Your task to perform on an android device: turn off notifications in google photos Image 0: 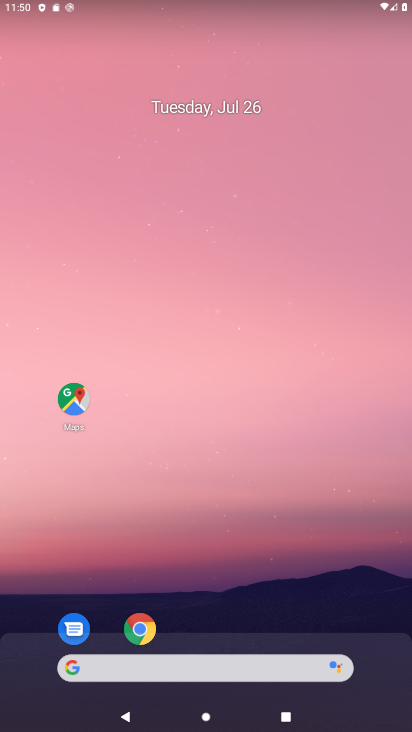
Step 0: click (288, 87)
Your task to perform on an android device: turn off notifications in google photos Image 1: 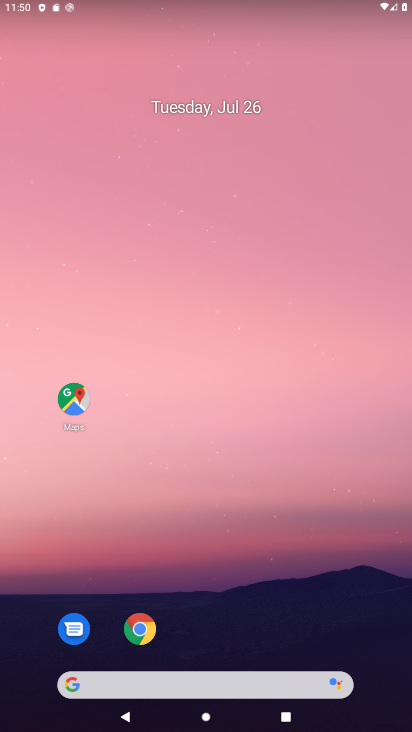
Step 1: drag from (223, 629) to (251, 159)
Your task to perform on an android device: turn off notifications in google photos Image 2: 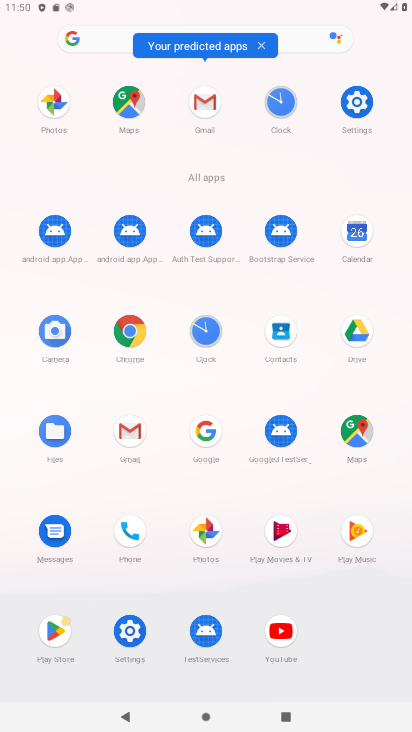
Step 2: click (199, 528)
Your task to perform on an android device: turn off notifications in google photos Image 3: 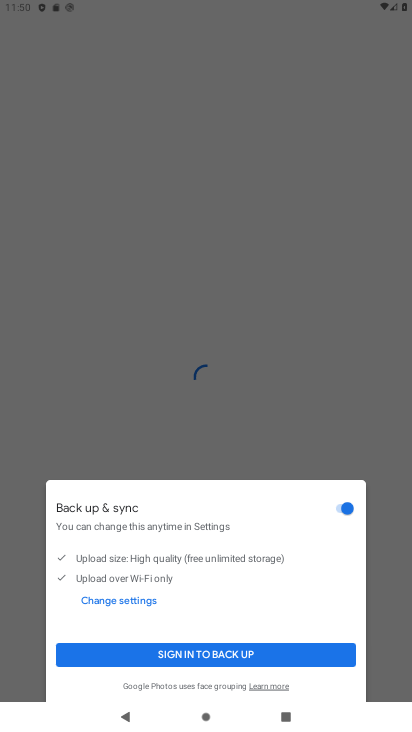
Step 3: drag from (211, 558) to (217, 256)
Your task to perform on an android device: turn off notifications in google photos Image 4: 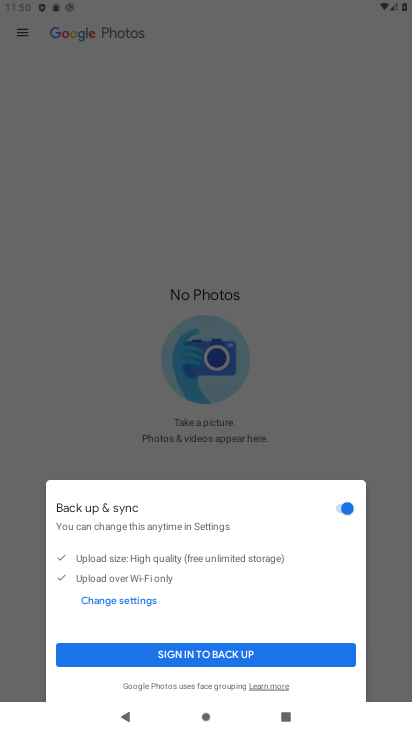
Step 4: click (240, 357)
Your task to perform on an android device: turn off notifications in google photos Image 5: 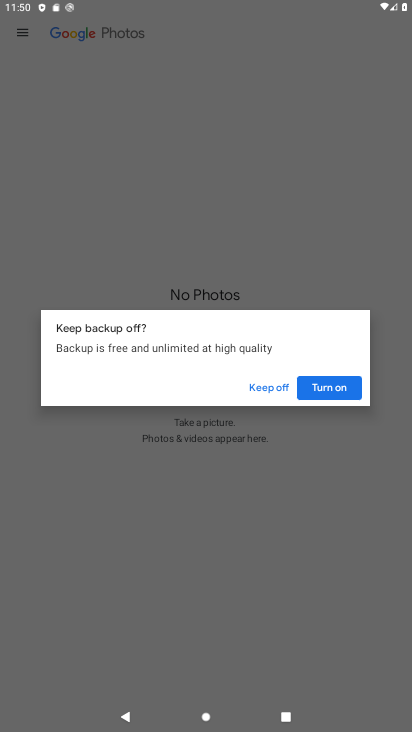
Step 5: click (330, 383)
Your task to perform on an android device: turn off notifications in google photos Image 6: 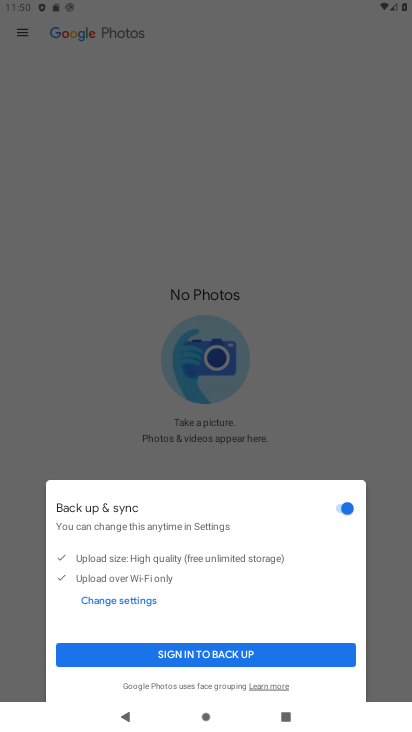
Step 6: drag from (206, 451) to (189, 167)
Your task to perform on an android device: turn off notifications in google photos Image 7: 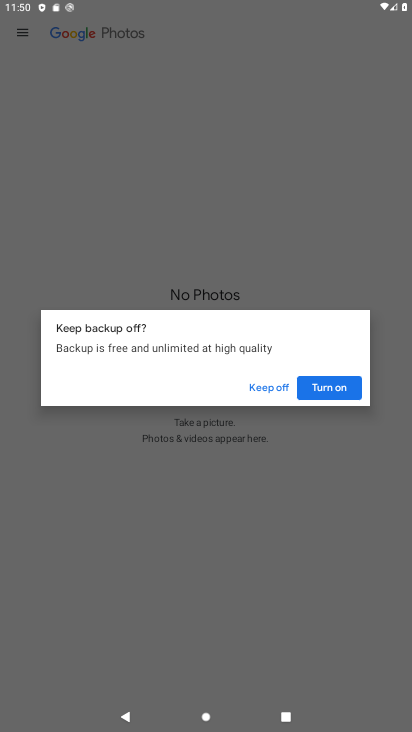
Step 7: click (92, 213)
Your task to perform on an android device: turn off notifications in google photos Image 8: 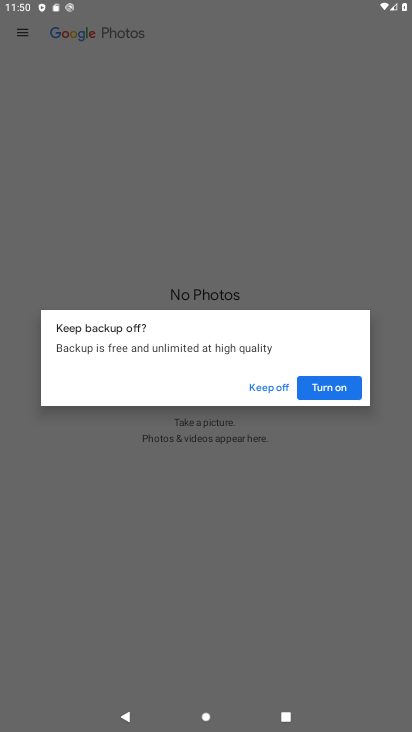
Step 8: click (252, 392)
Your task to perform on an android device: turn off notifications in google photos Image 9: 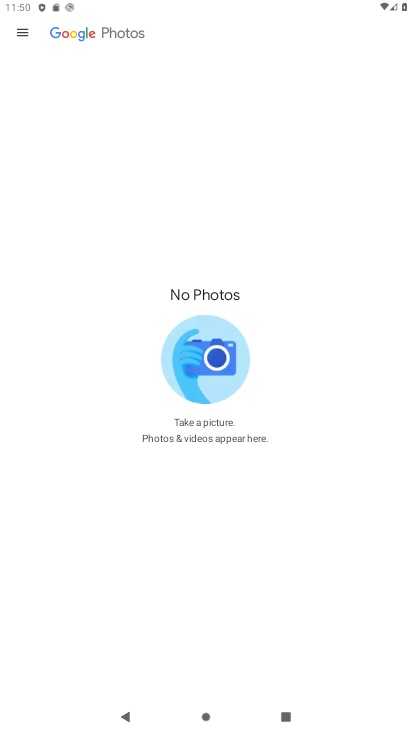
Step 9: click (24, 25)
Your task to perform on an android device: turn off notifications in google photos Image 10: 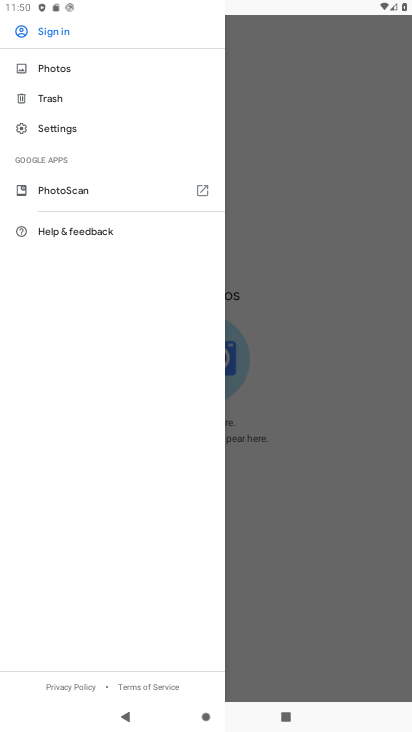
Step 10: click (334, 417)
Your task to perform on an android device: turn off notifications in google photos Image 11: 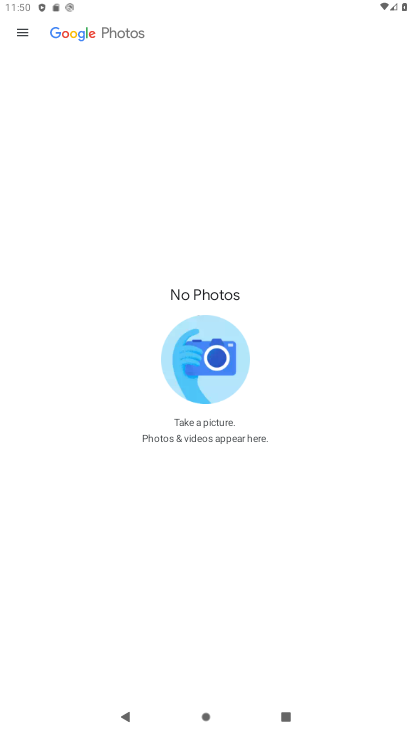
Step 11: click (25, 31)
Your task to perform on an android device: turn off notifications in google photos Image 12: 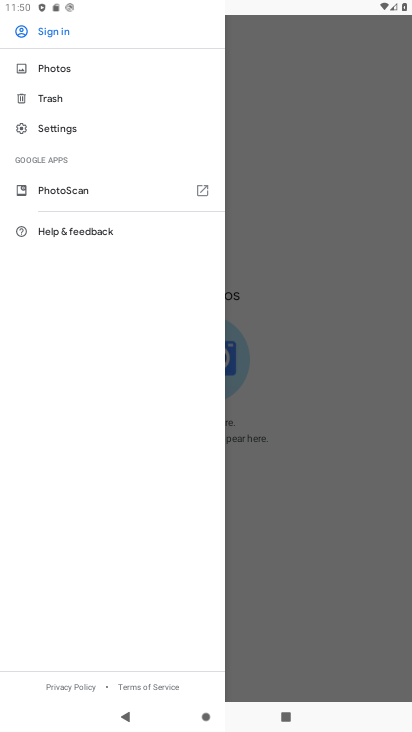
Step 12: click (77, 126)
Your task to perform on an android device: turn off notifications in google photos Image 13: 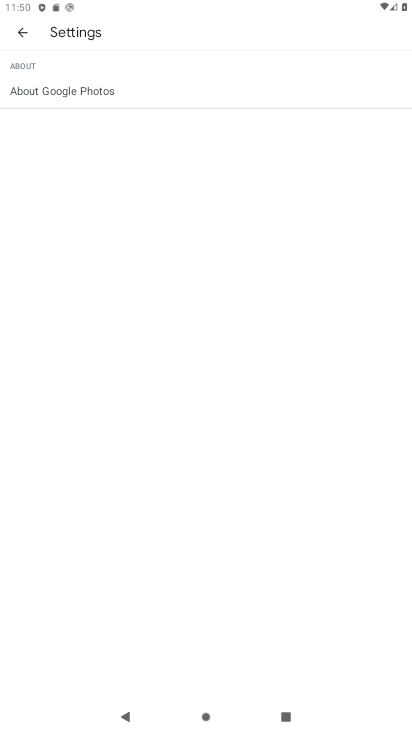
Step 13: click (81, 90)
Your task to perform on an android device: turn off notifications in google photos Image 14: 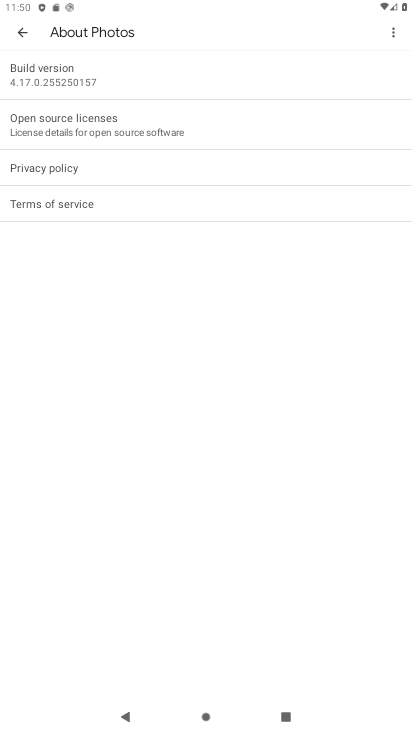
Step 14: click (28, 25)
Your task to perform on an android device: turn off notifications in google photos Image 15: 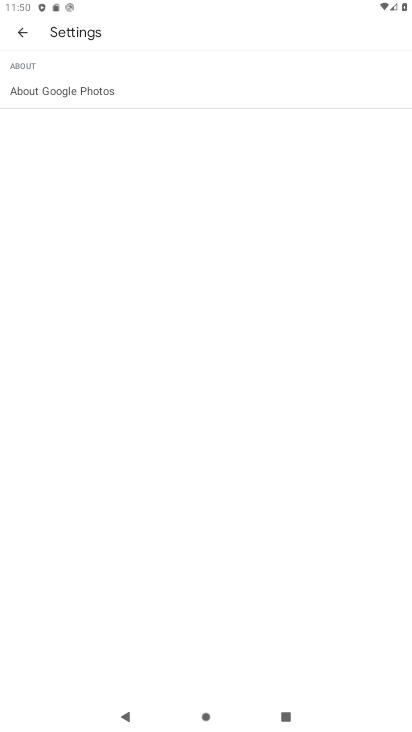
Step 15: task complete